Your task to perform on an android device: When is my next appointment? Image 0: 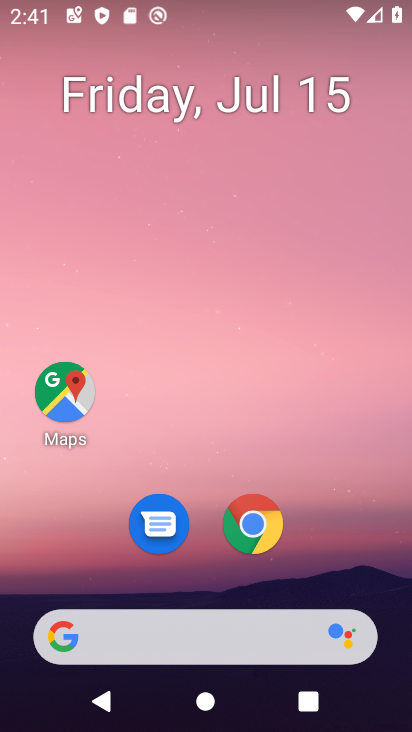
Step 0: drag from (158, 638) to (322, 103)
Your task to perform on an android device: When is my next appointment? Image 1: 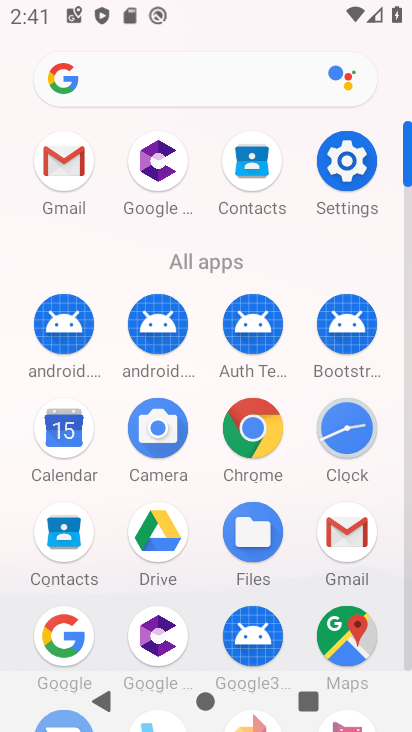
Step 1: click (61, 433)
Your task to perform on an android device: When is my next appointment? Image 2: 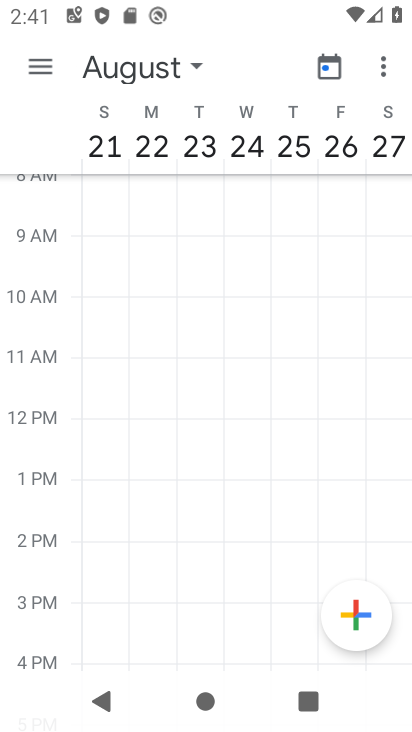
Step 2: click (33, 67)
Your task to perform on an android device: When is my next appointment? Image 3: 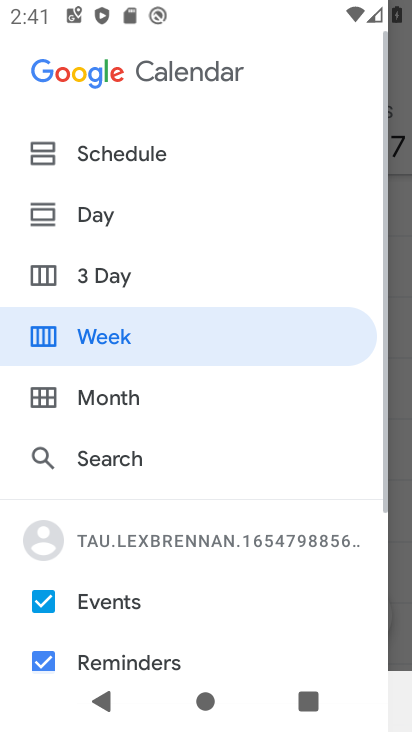
Step 3: click (123, 153)
Your task to perform on an android device: When is my next appointment? Image 4: 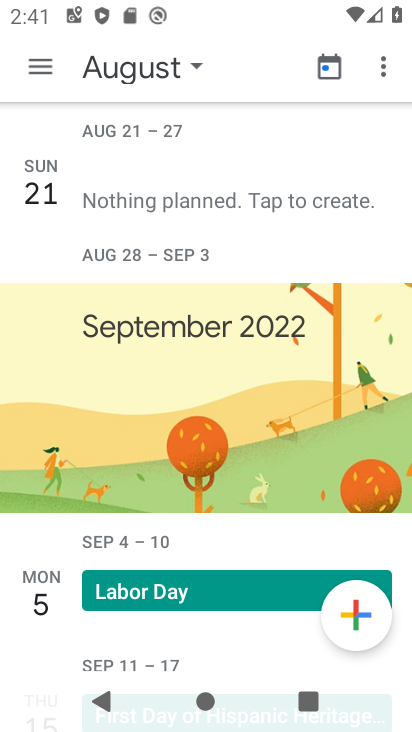
Step 4: click (138, 72)
Your task to perform on an android device: When is my next appointment? Image 5: 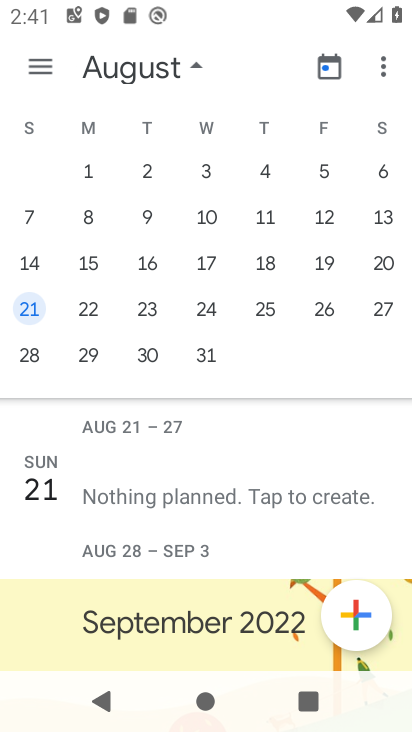
Step 5: drag from (138, 226) to (406, 289)
Your task to perform on an android device: When is my next appointment? Image 6: 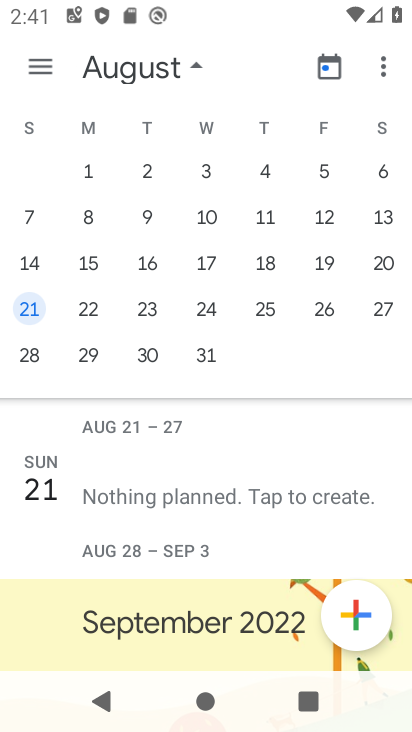
Step 6: drag from (137, 206) to (409, 258)
Your task to perform on an android device: When is my next appointment? Image 7: 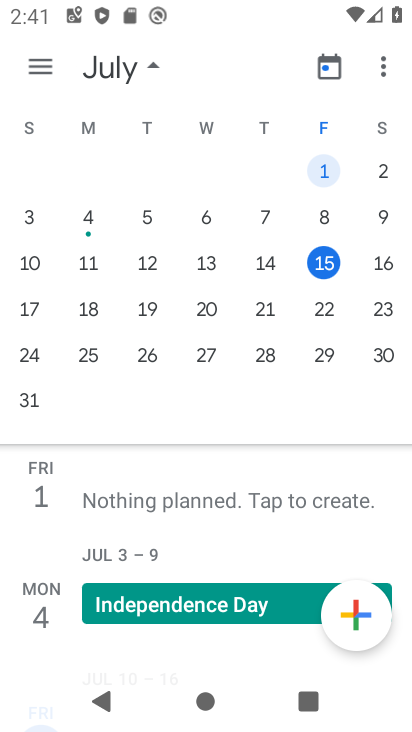
Step 7: click (331, 258)
Your task to perform on an android device: When is my next appointment? Image 8: 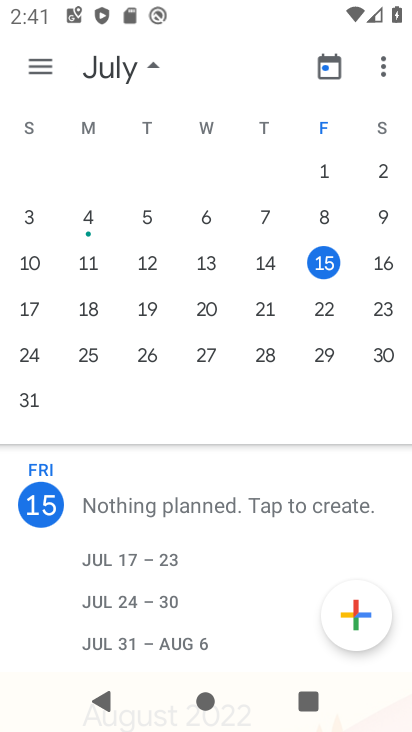
Step 8: click (42, 65)
Your task to perform on an android device: When is my next appointment? Image 9: 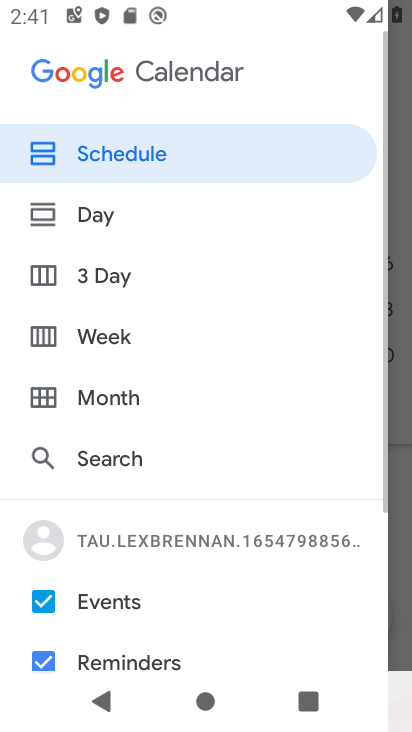
Step 9: click (110, 164)
Your task to perform on an android device: When is my next appointment? Image 10: 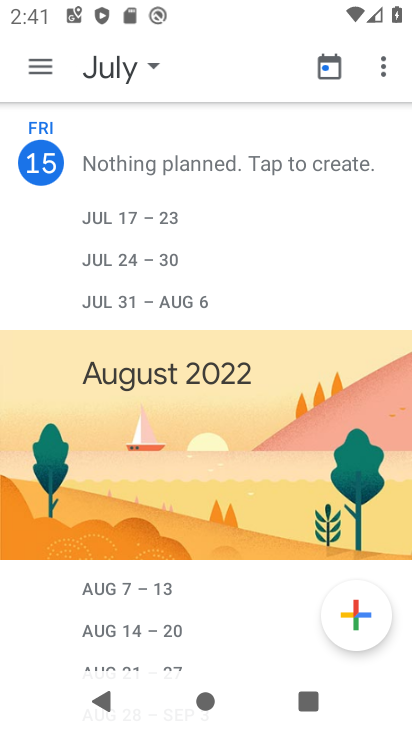
Step 10: task complete